Your task to perform on an android device: Go to network settings Image 0: 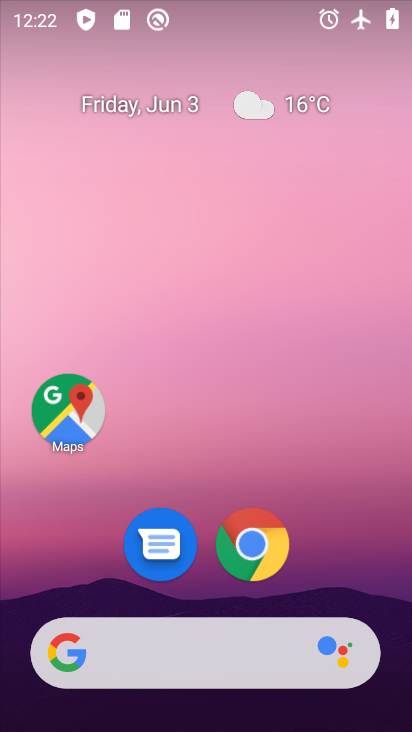
Step 0: drag from (355, 428) to (356, 90)
Your task to perform on an android device: Go to network settings Image 1: 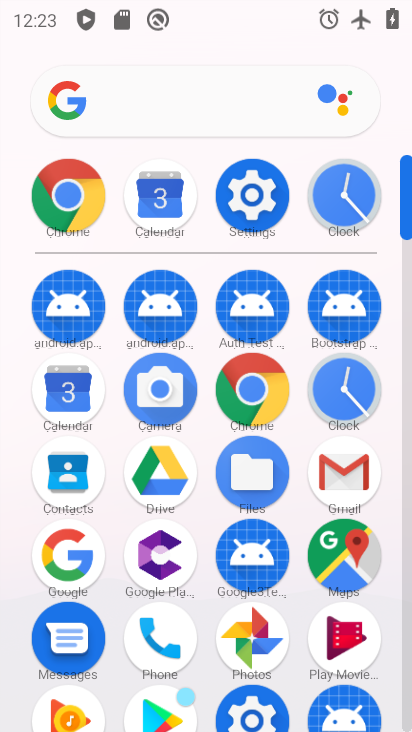
Step 1: click (251, 208)
Your task to perform on an android device: Go to network settings Image 2: 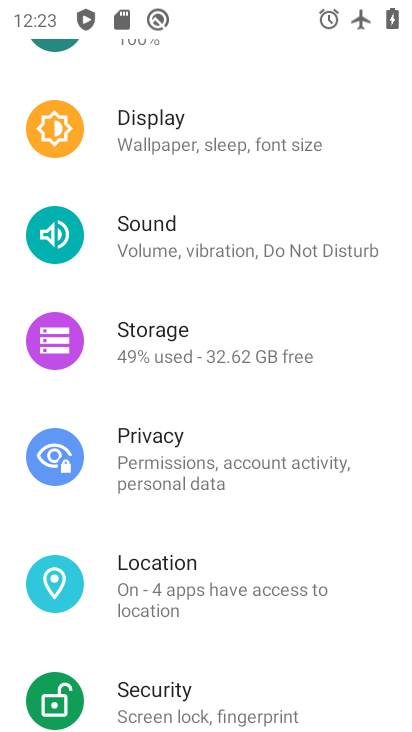
Step 2: drag from (293, 236) to (316, 674)
Your task to perform on an android device: Go to network settings Image 3: 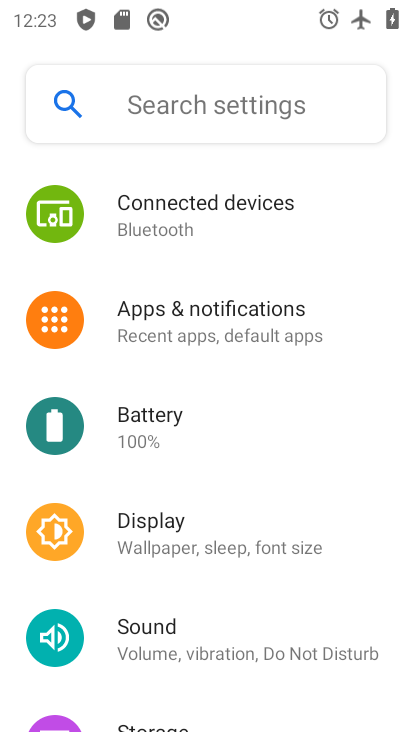
Step 3: drag from (267, 240) to (335, 564)
Your task to perform on an android device: Go to network settings Image 4: 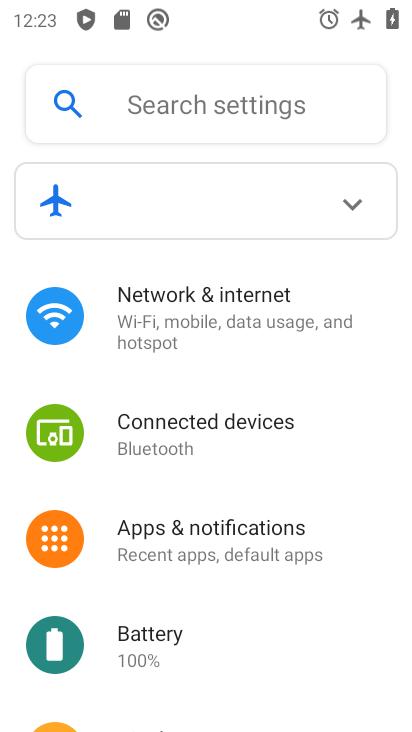
Step 4: click (251, 338)
Your task to perform on an android device: Go to network settings Image 5: 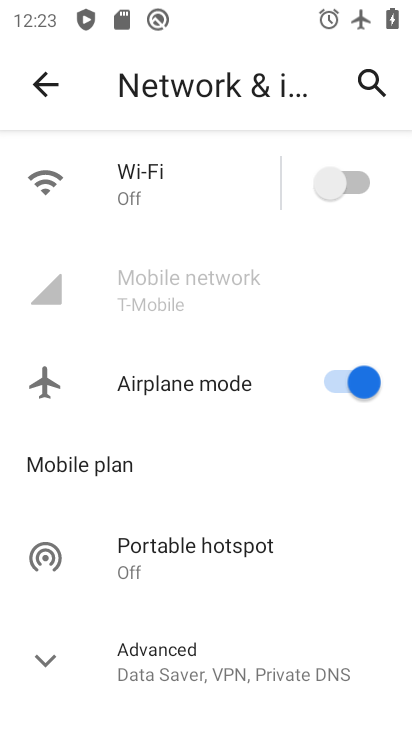
Step 5: task complete